Your task to perform on an android device: change your default location settings in chrome Image 0: 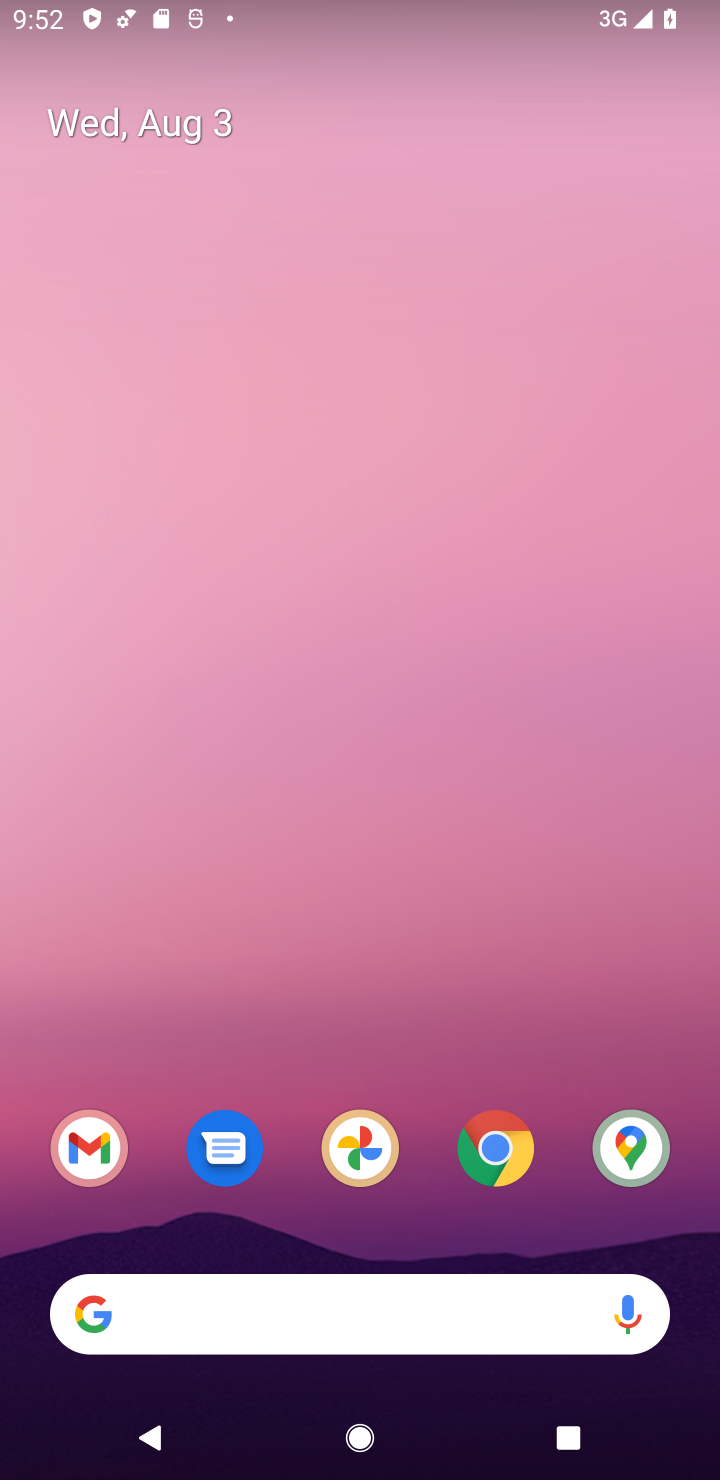
Step 0: drag from (585, 760) to (636, 222)
Your task to perform on an android device: change your default location settings in chrome Image 1: 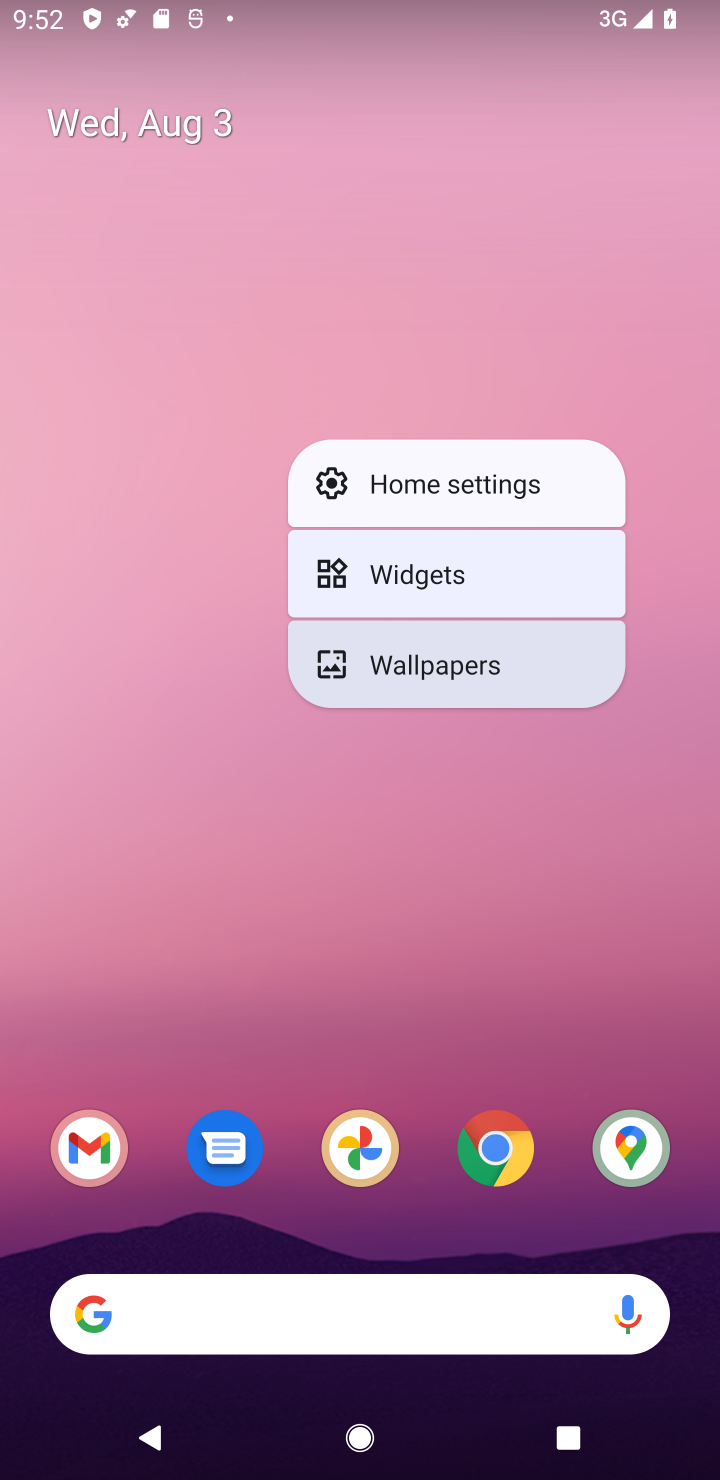
Step 1: click (419, 911)
Your task to perform on an android device: change your default location settings in chrome Image 2: 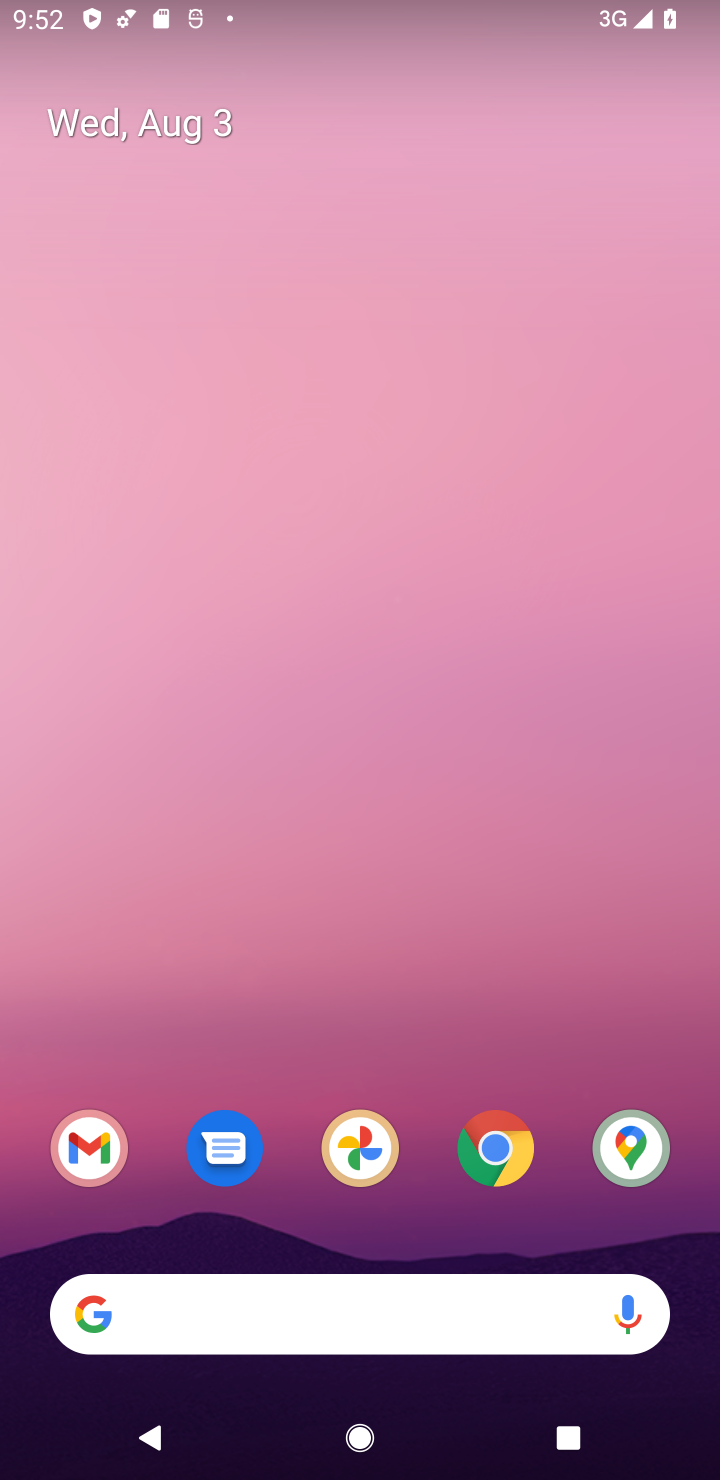
Step 2: drag from (419, 911) to (352, 330)
Your task to perform on an android device: change your default location settings in chrome Image 3: 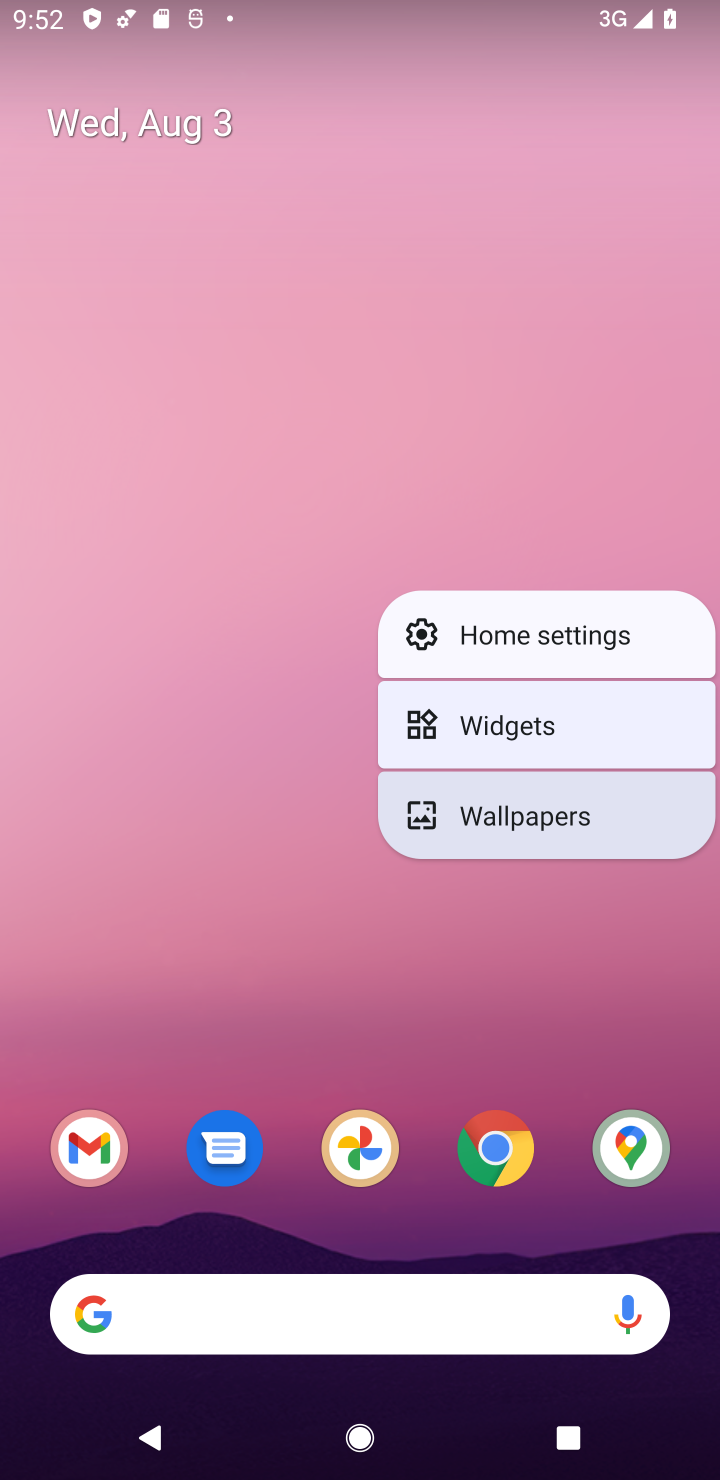
Step 3: click (400, 477)
Your task to perform on an android device: change your default location settings in chrome Image 4: 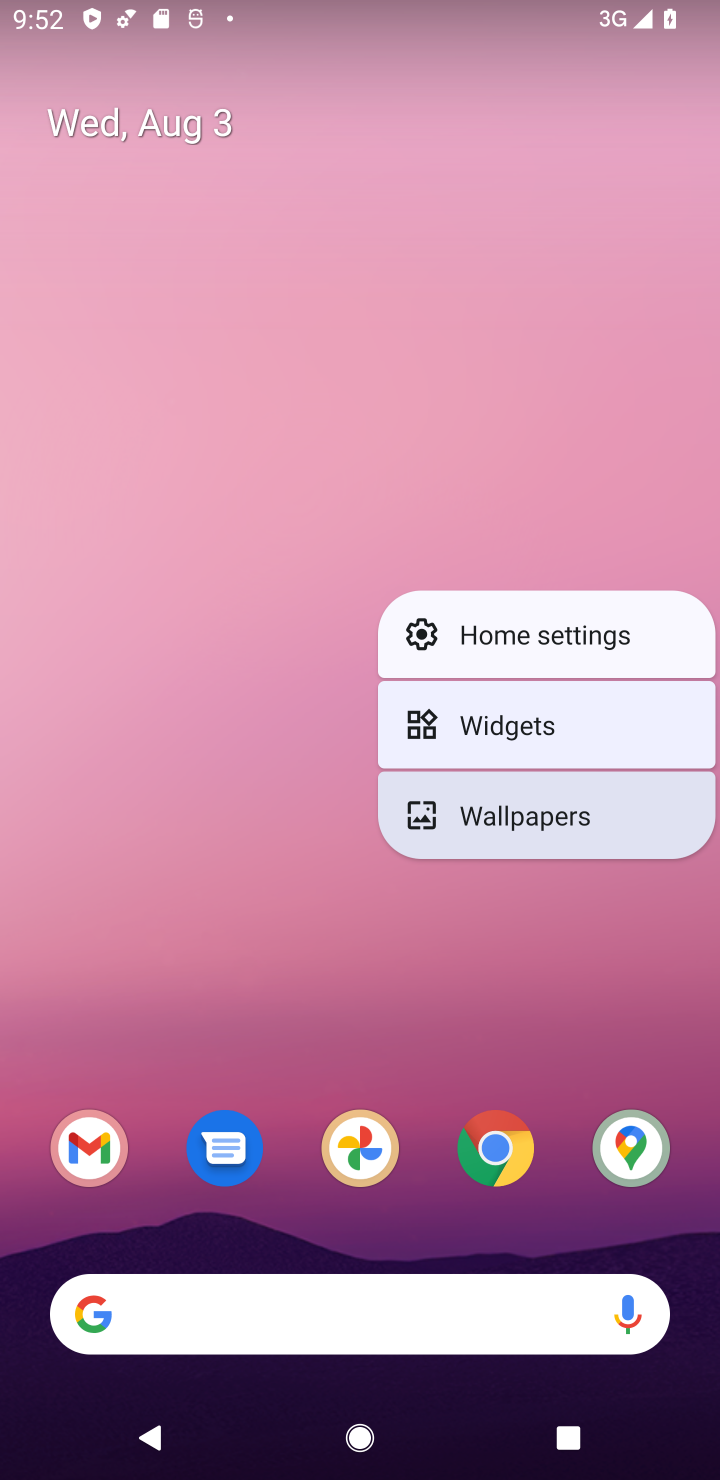
Step 4: click (400, 477)
Your task to perform on an android device: change your default location settings in chrome Image 5: 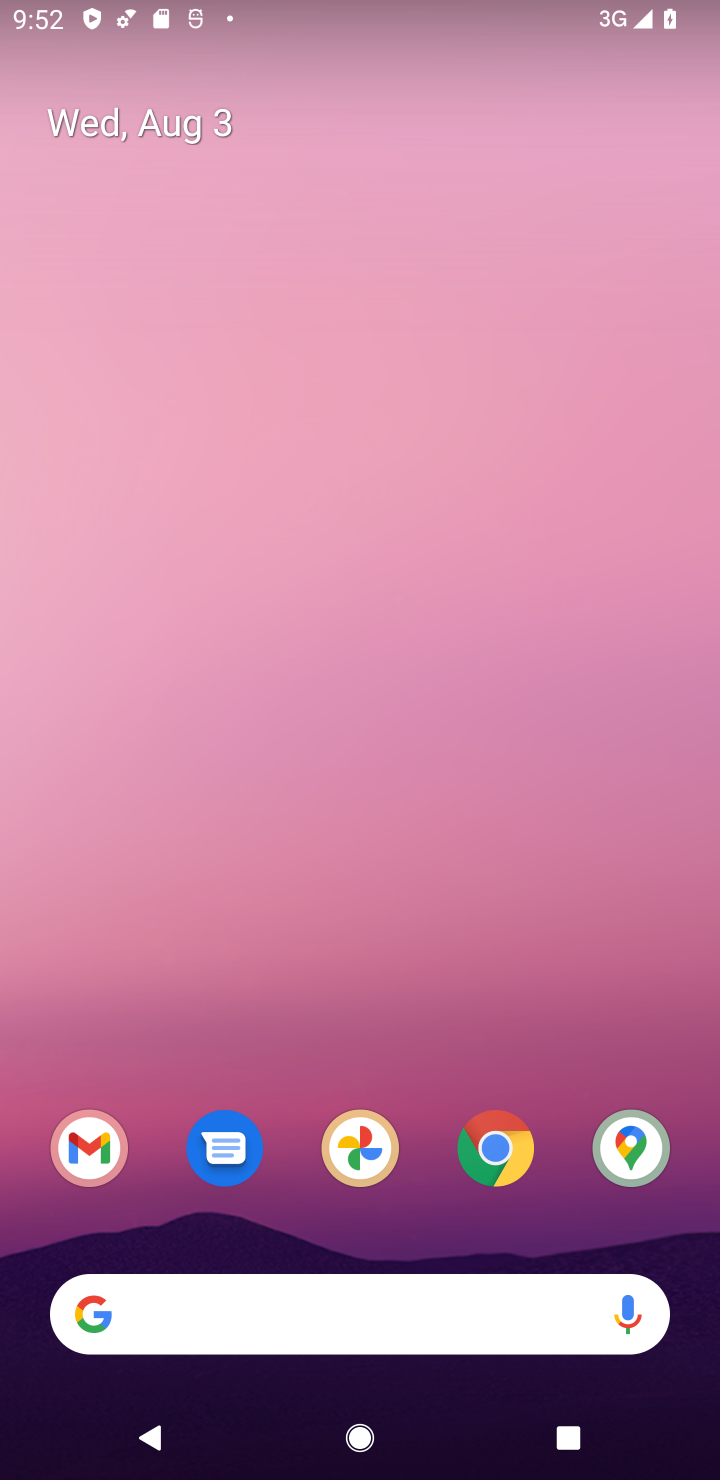
Step 5: drag from (410, 976) to (501, 213)
Your task to perform on an android device: change your default location settings in chrome Image 6: 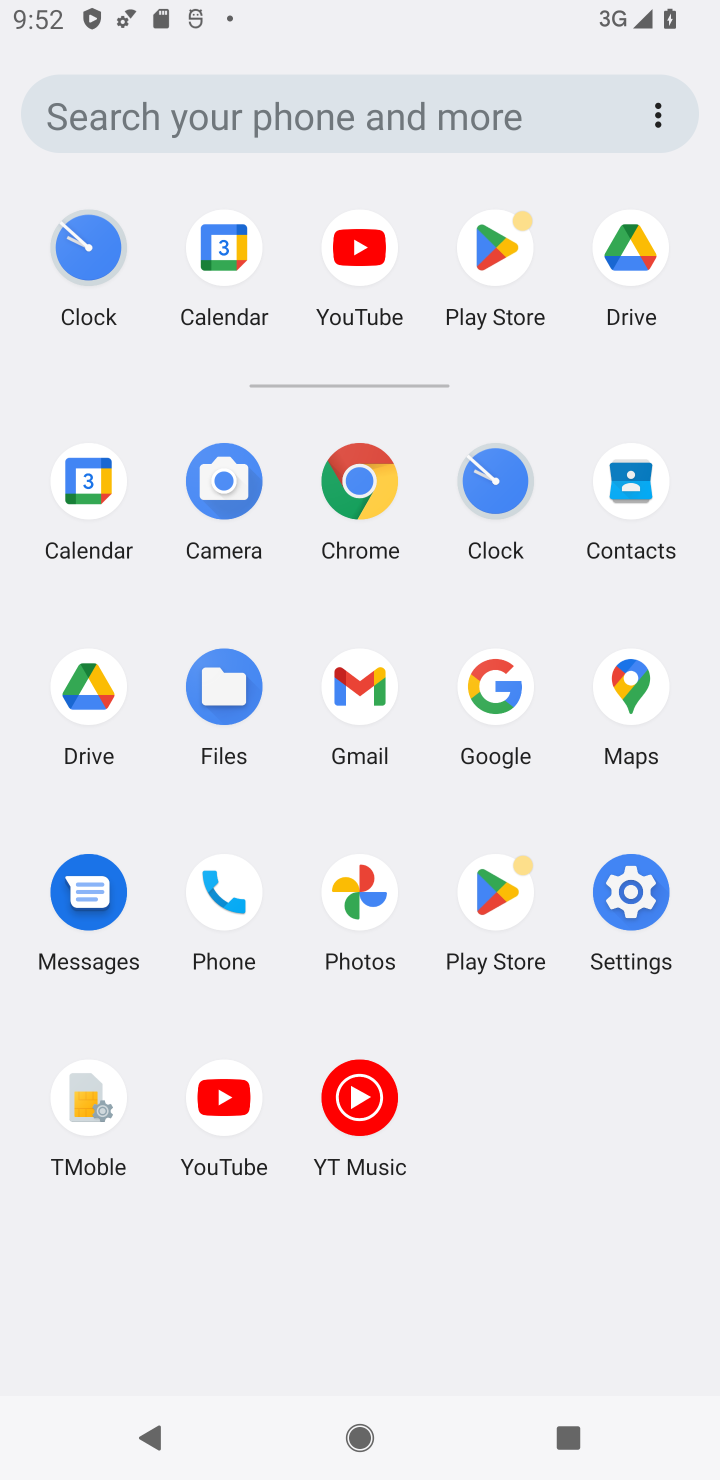
Step 6: click (356, 490)
Your task to perform on an android device: change your default location settings in chrome Image 7: 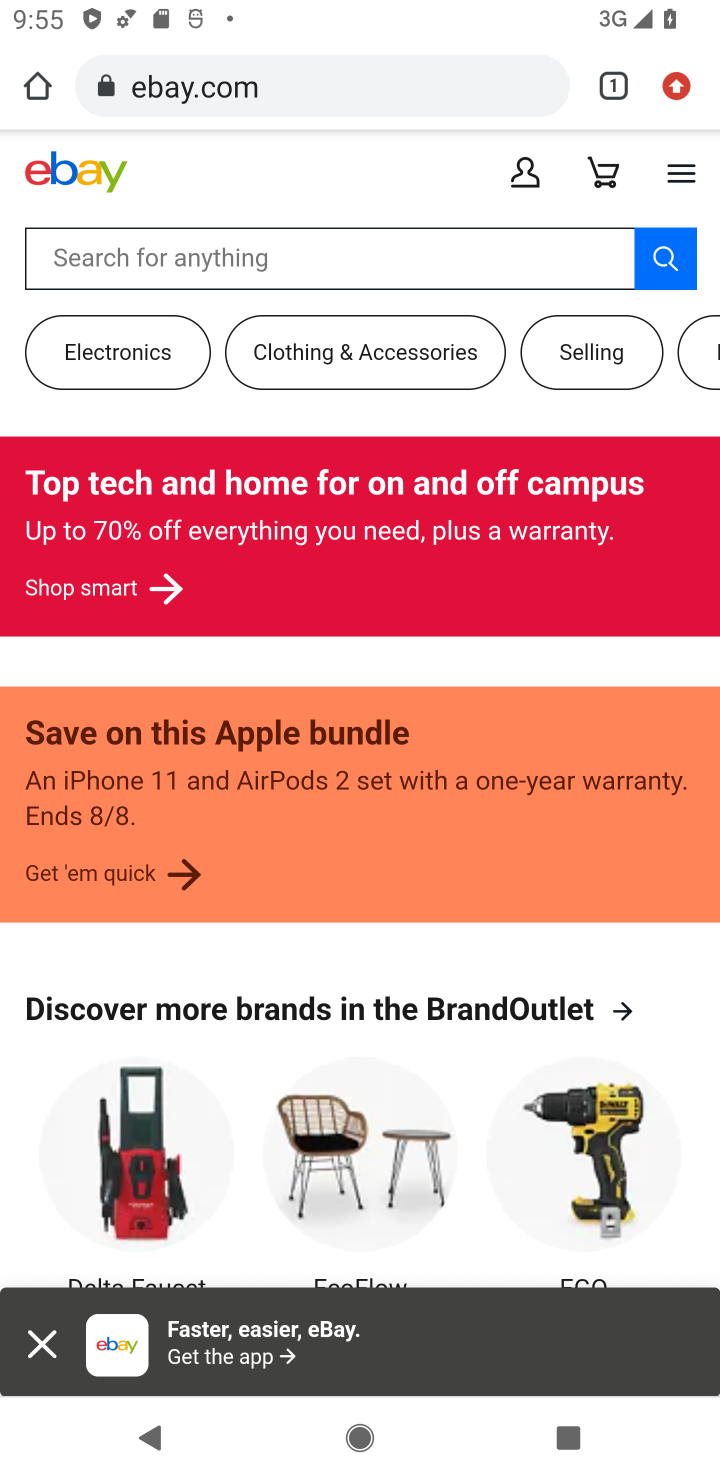
Step 7: press home button
Your task to perform on an android device: change your default location settings in chrome Image 8: 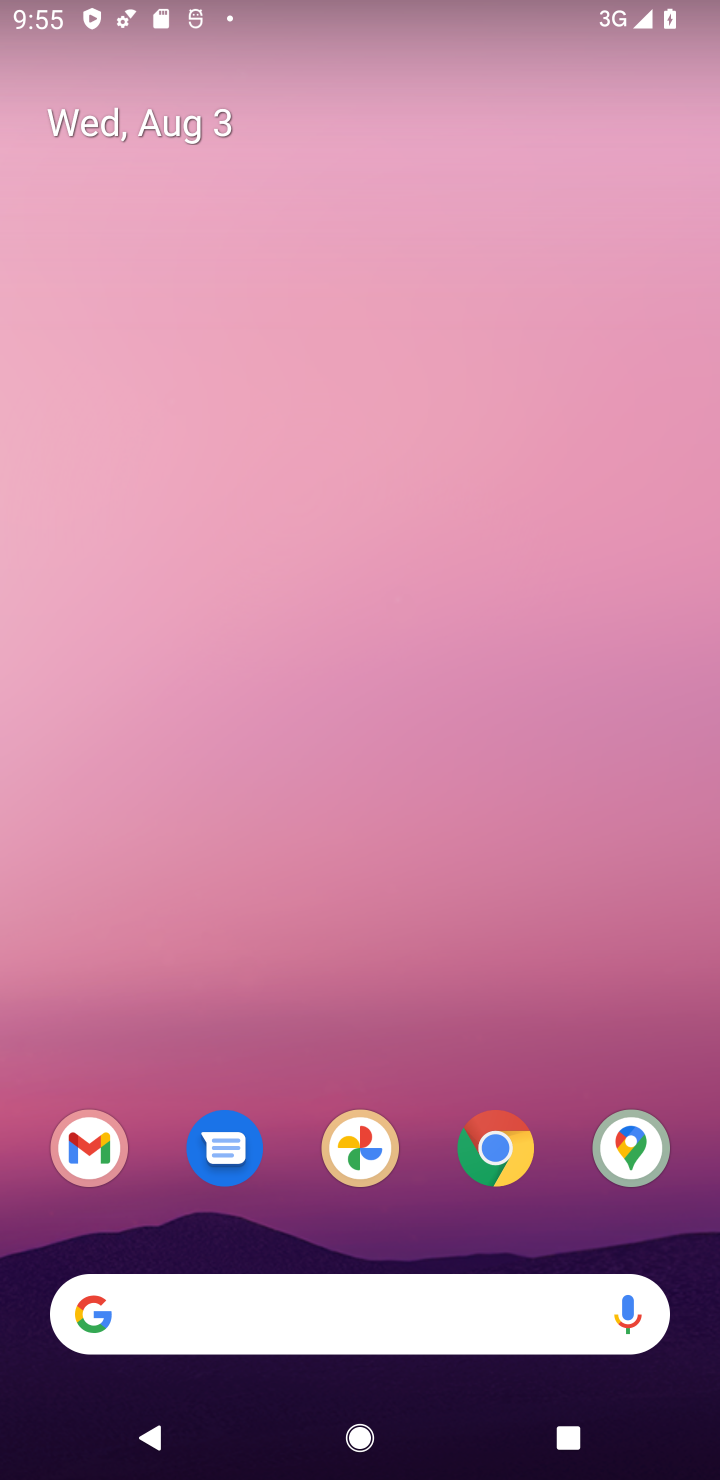
Step 8: click (470, 1145)
Your task to perform on an android device: change your default location settings in chrome Image 9: 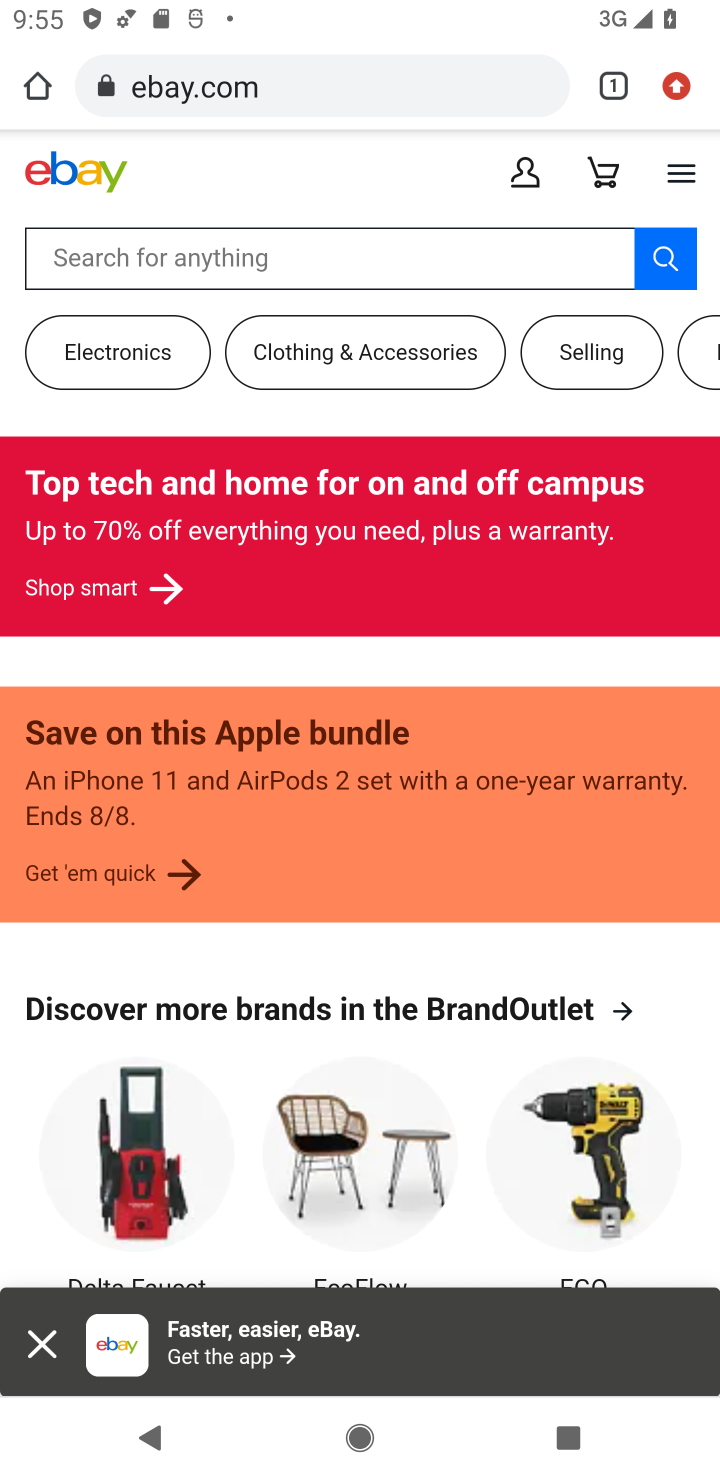
Step 9: click (674, 78)
Your task to perform on an android device: change your default location settings in chrome Image 10: 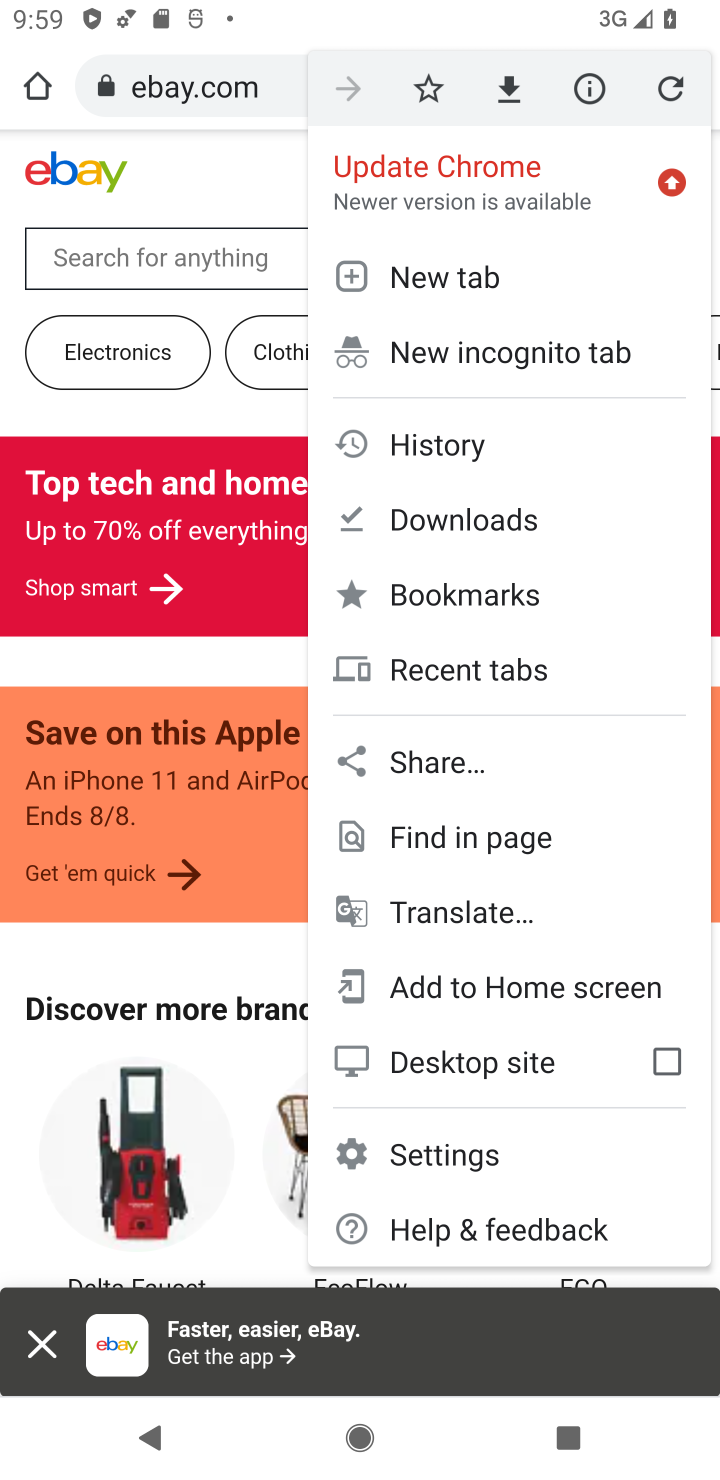
Step 10: press home button
Your task to perform on an android device: change your default location settings in chrome Image 11: 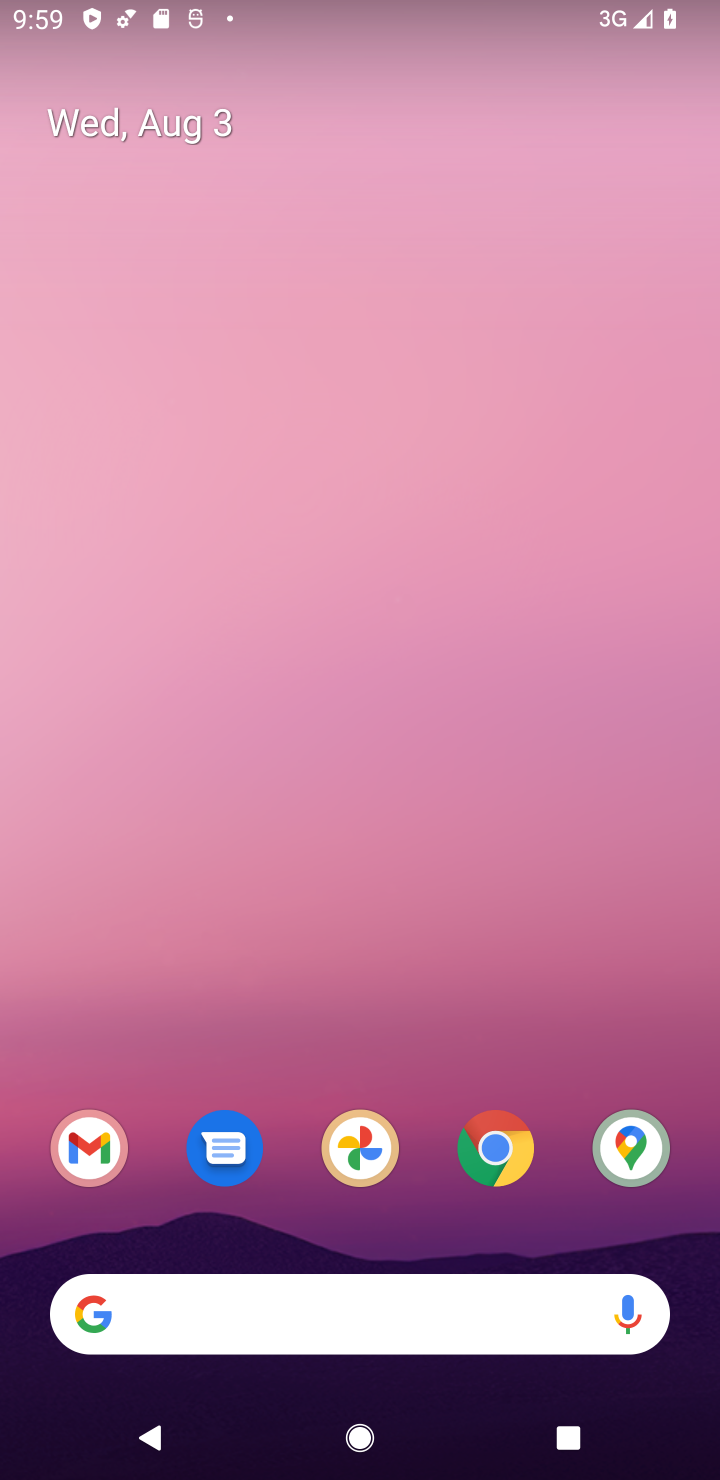
Step 11: drag from (398, 913) to (409, 177)
Your task to perform on an android device: change your default location settings in chrome Image 12: 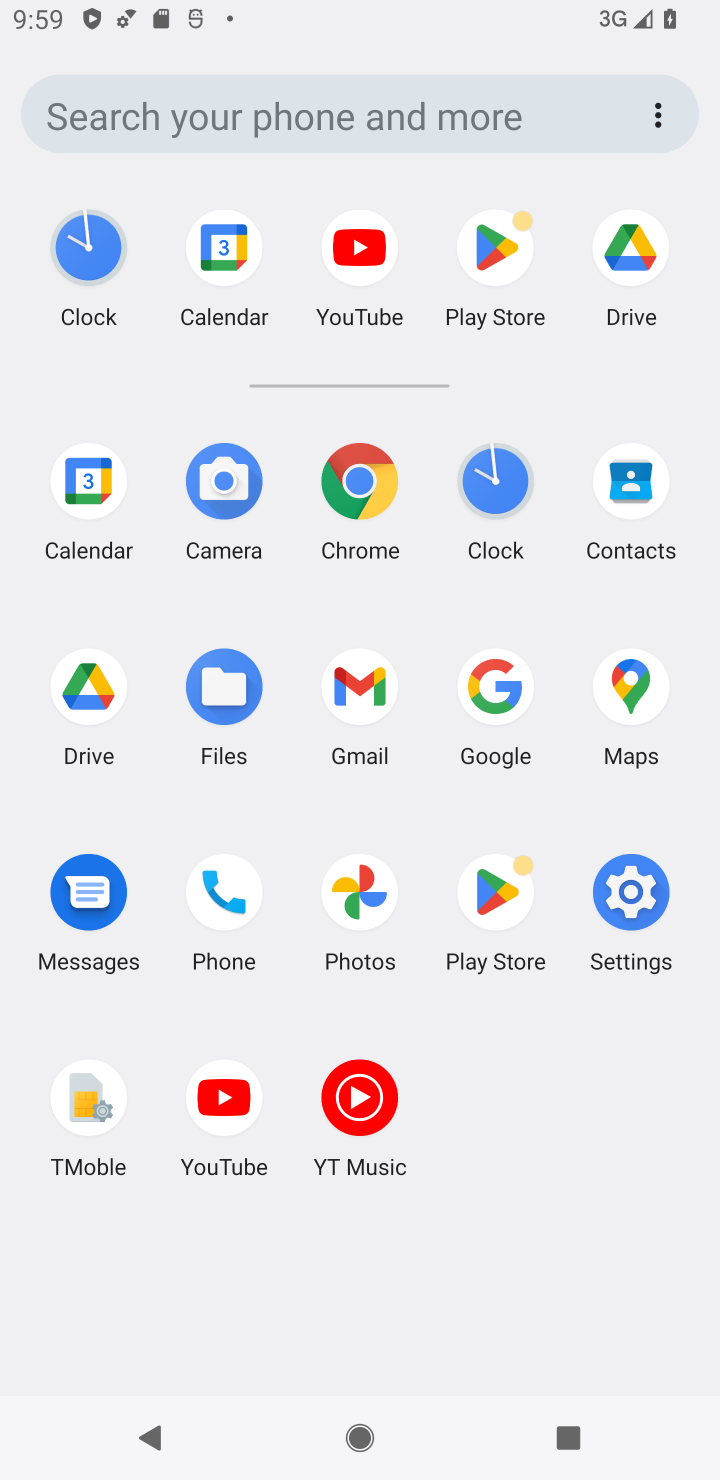
Step 12: click (372, 476)
Your task to perform on an android device: change your default location settings in chrome Image 13: 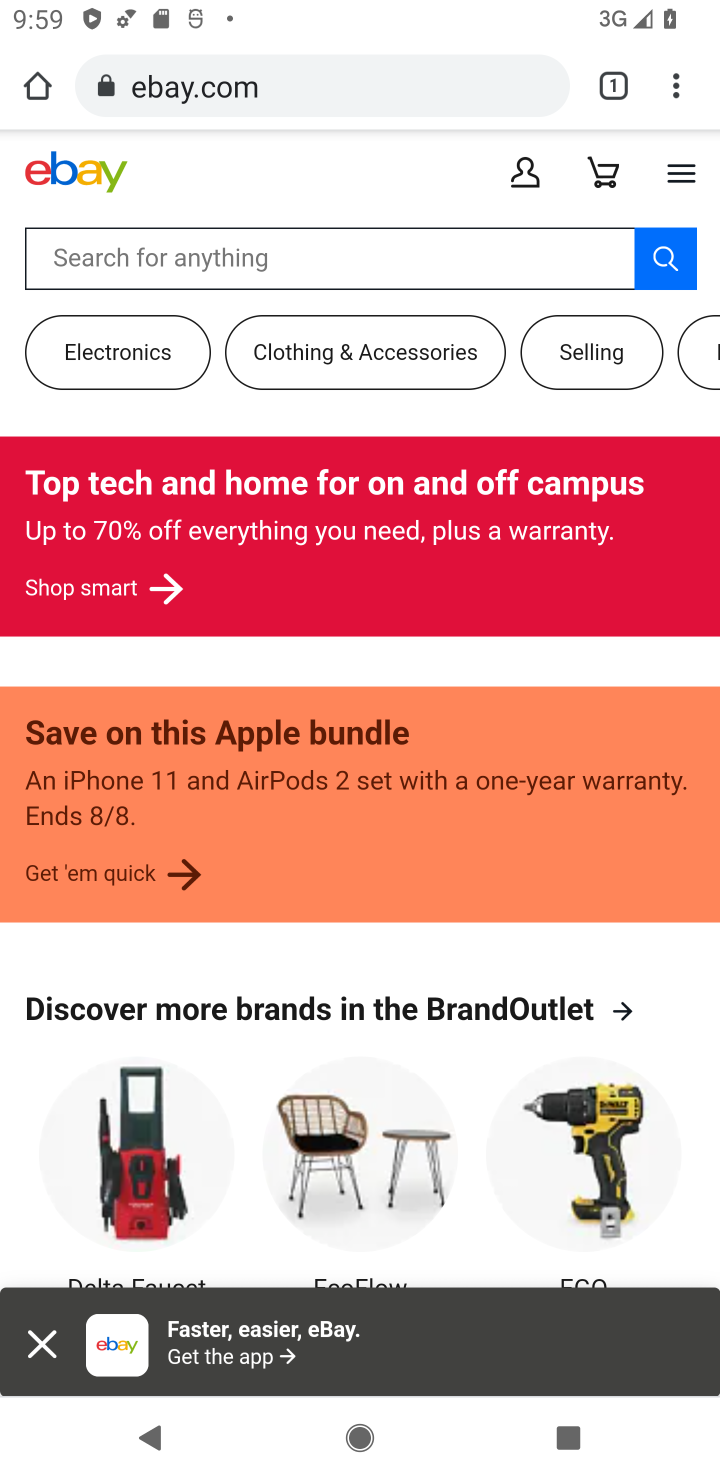
Step 13: click (679, 92)
Your task to perform on an android device: change your default location settings in chrome Image 14: 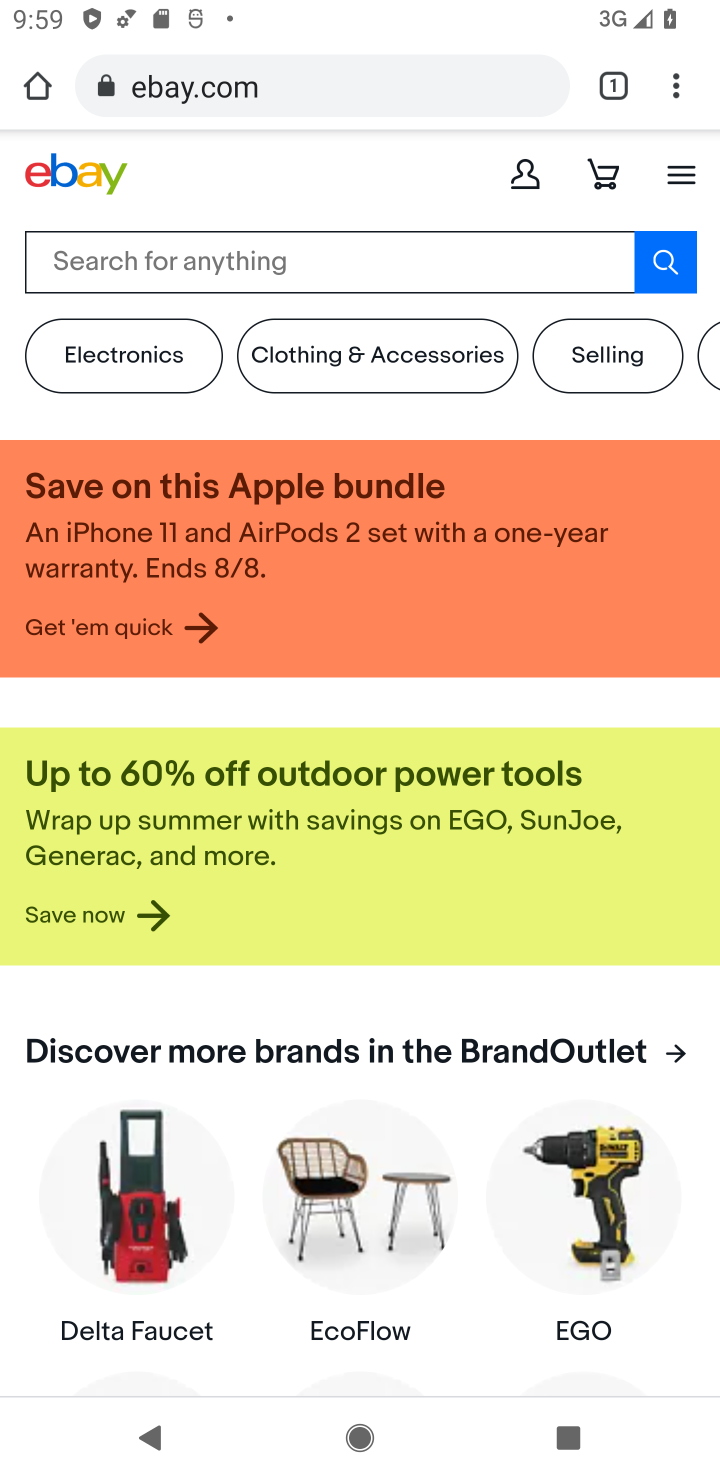
Step 14: click (675, 92)
Your task to perform on an android device: change your default location settings in chrome Image 15: 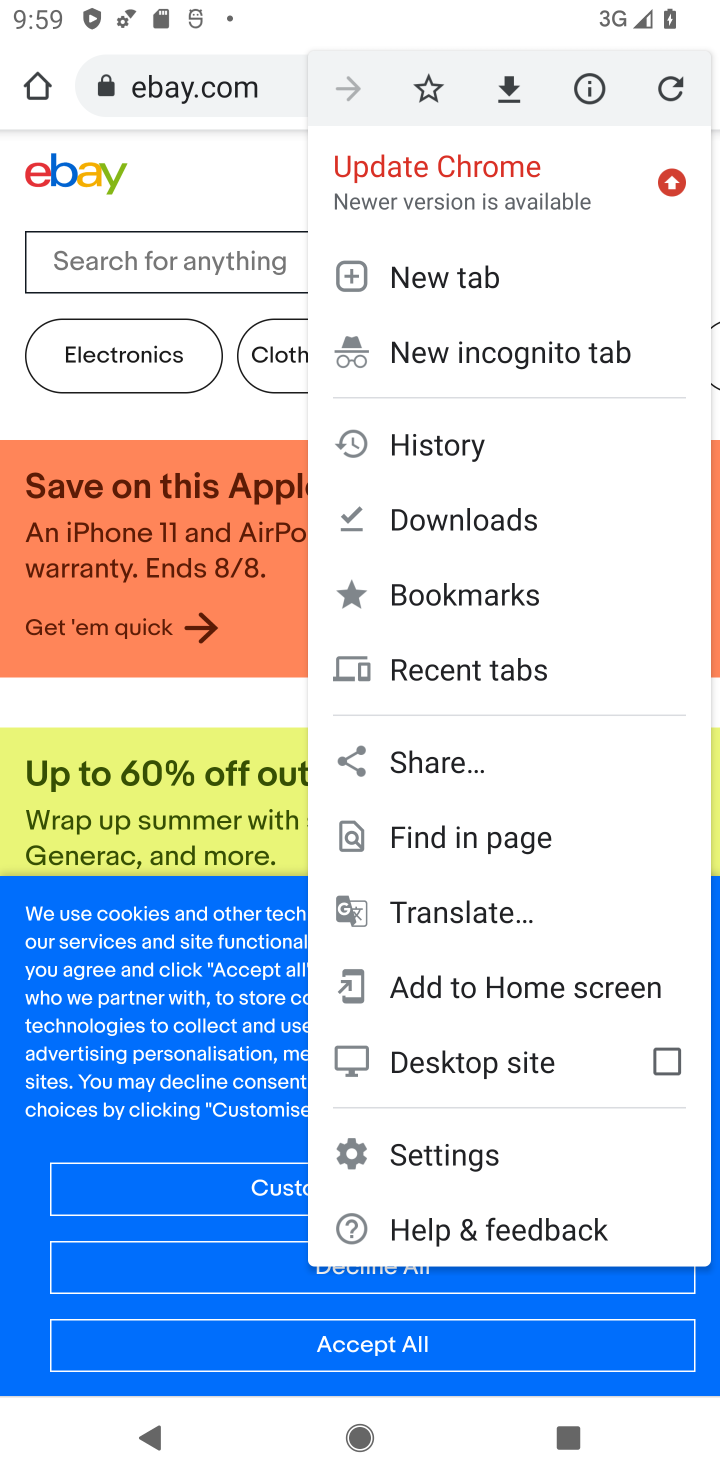
Step 15: click (418, 1152)
Your task to perform on an android device: change your default location settings in chrome Image 16: 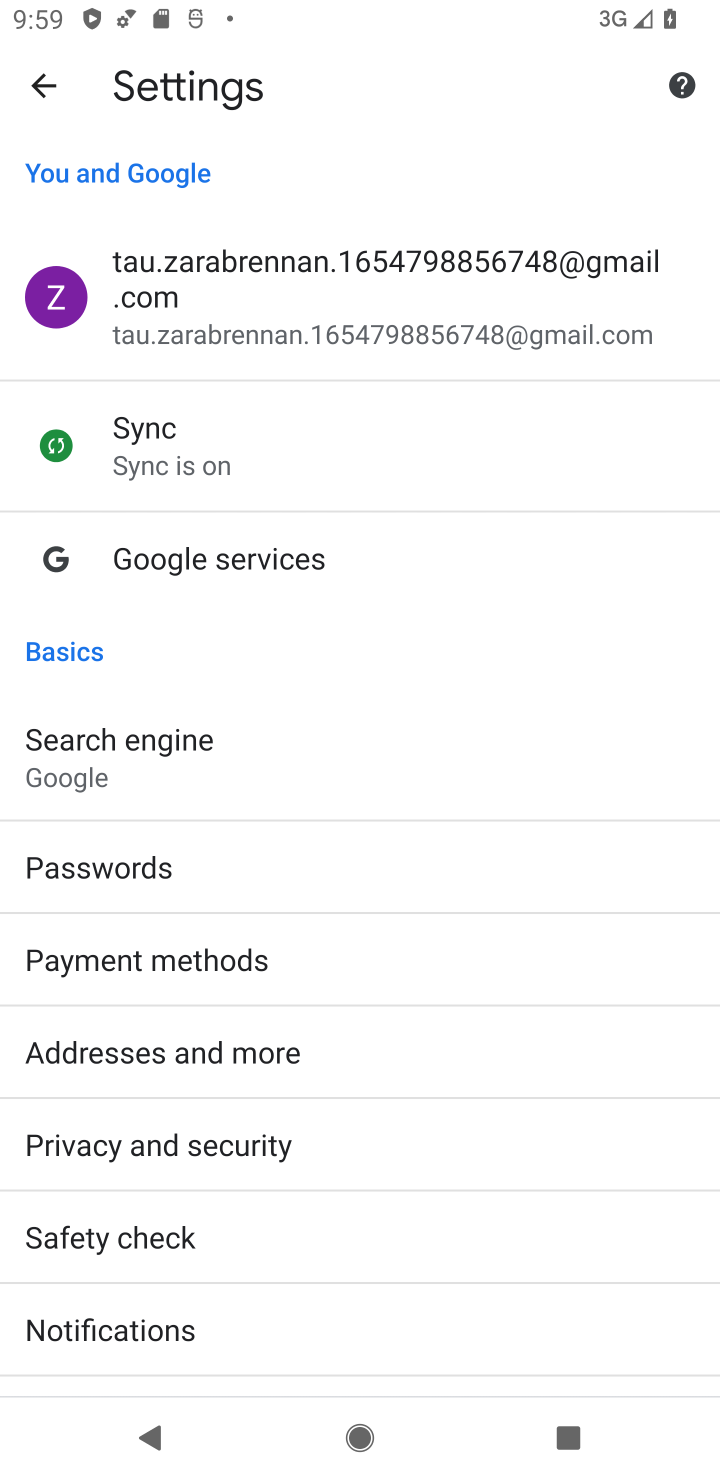
Step 16: task complete